Your task to perform on an android device: Open battery settings Image 0: 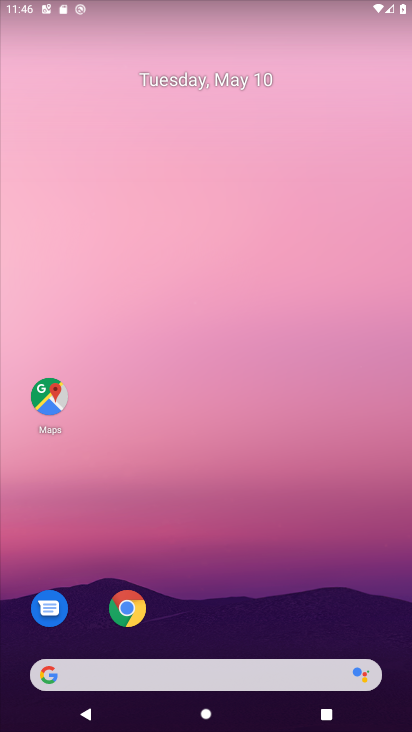
Step 0: drag from (231, 671) to (239, 276)
Your task to perform on an android device: Open battery settings Image 1: 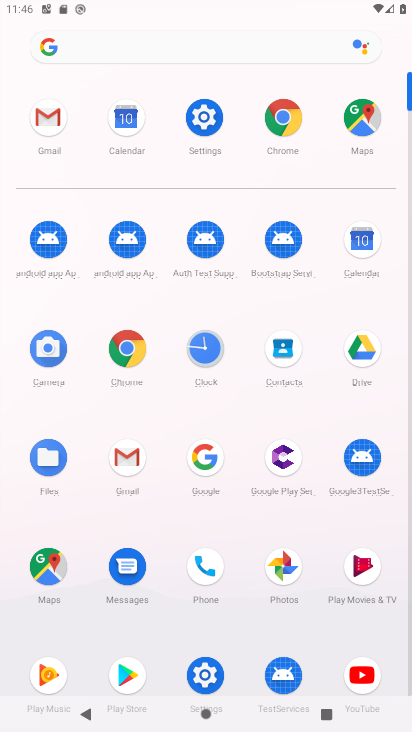
Step 1: click (209, 103)
Your task to perform on an android device: Open battery settings Image 2: 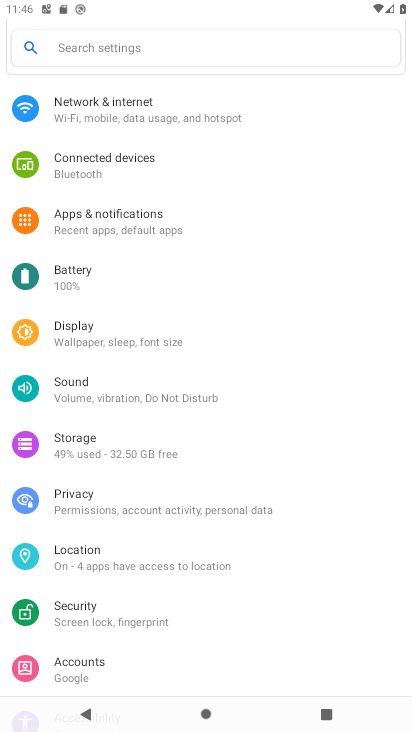
Step 2: click (61, 267)
Your task to perform on an android device: Open battery settings Image 3: 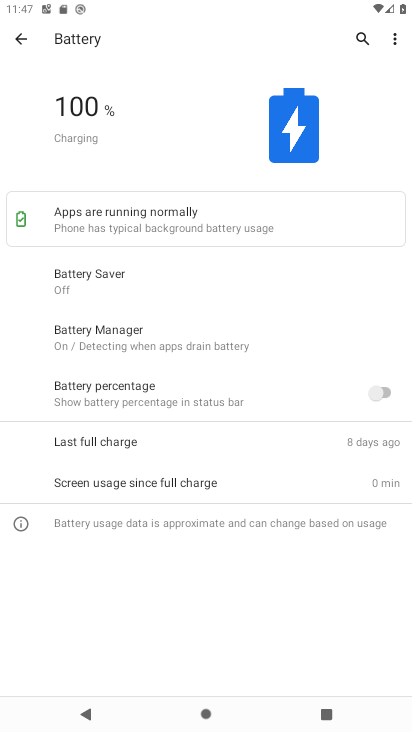
Step 3: task complete